Your task to perform on an android device: Check the news Image 0: 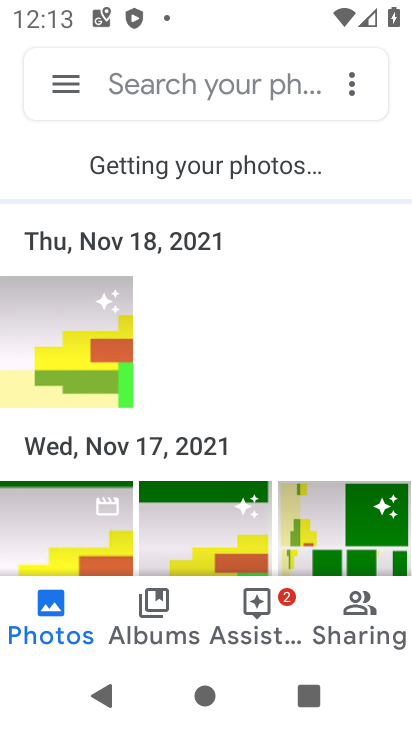
Step 0: press home button
Your task to perform on an android device: Check the news Image 1: 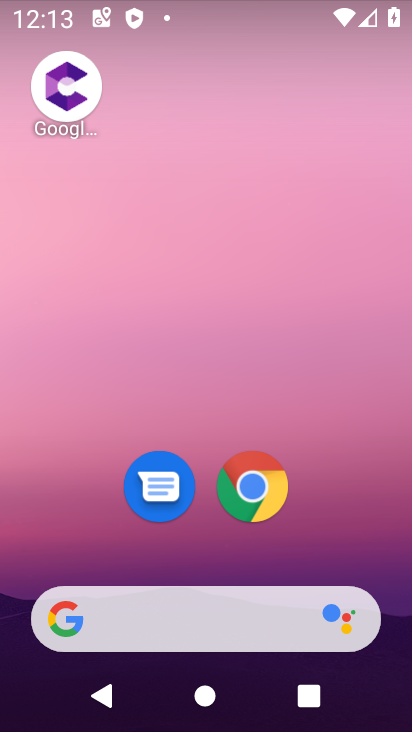
Step 1: task complete